Your task to perform on an android device: Go to Wikipedia Image 0: 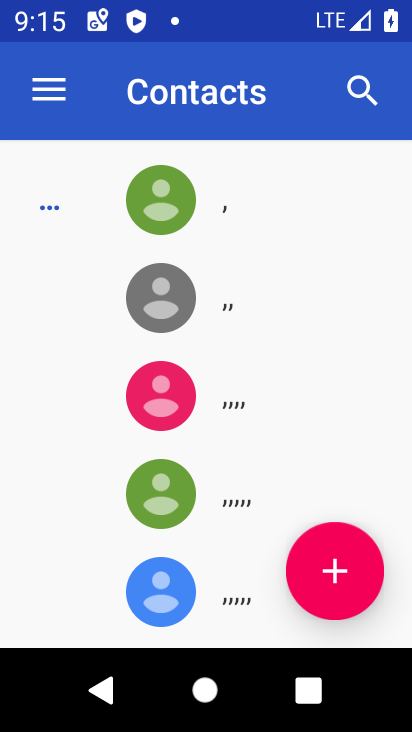
Step 0: press home button
Your task to perform on an android device: Go to Wikipedia Image 1: 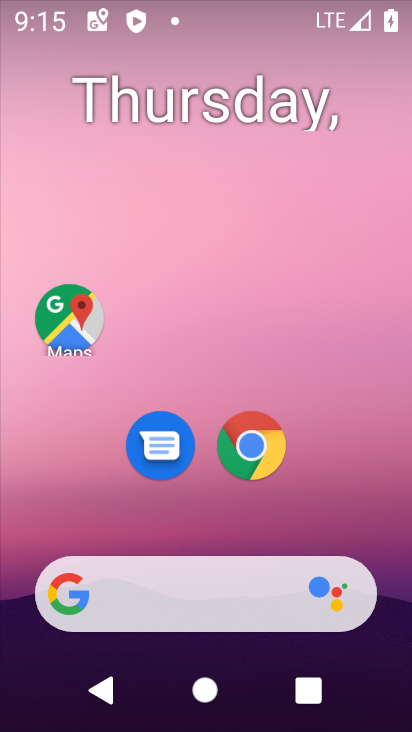
Step 1: click (258, 437)
Your task to perform on an android device: Go to Wikipedia Image 2: 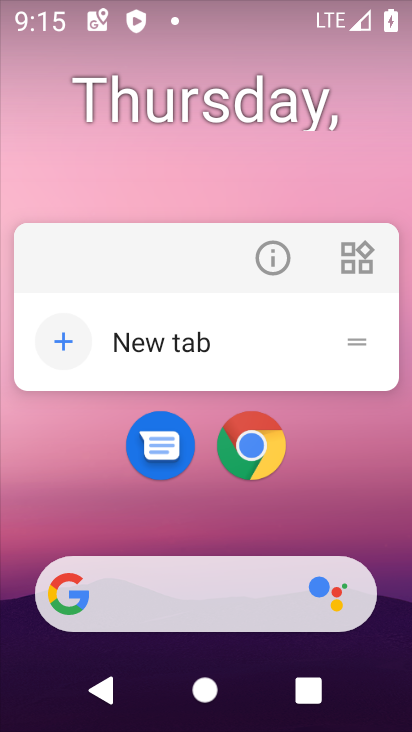
Step 2: click (278, 261)
Your task to perform on an android device: Go to Wikipedia Image 3: 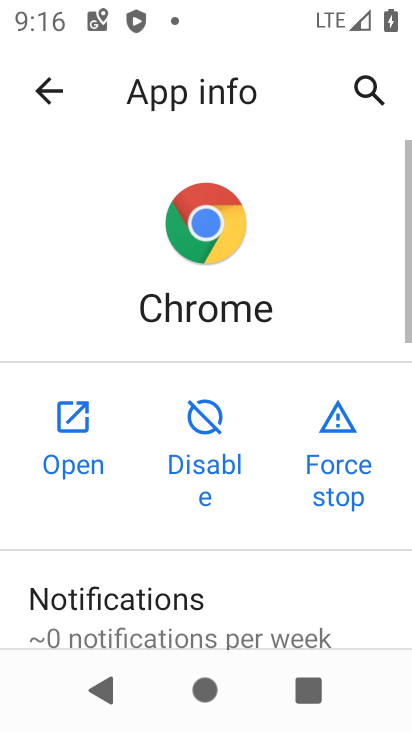
Step 3: click (55, 415)
Your task to perform on an android device: Go to Wikipedia Image 4: 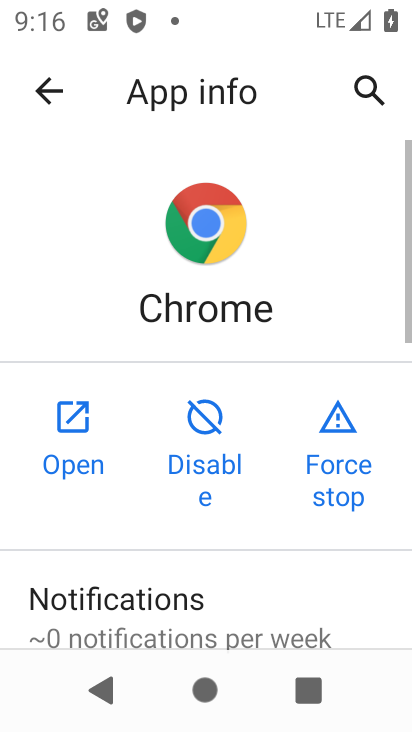
Step 4: click (55, 415)
Your task to perform on an android device: Go to Wikipedia Image 5: 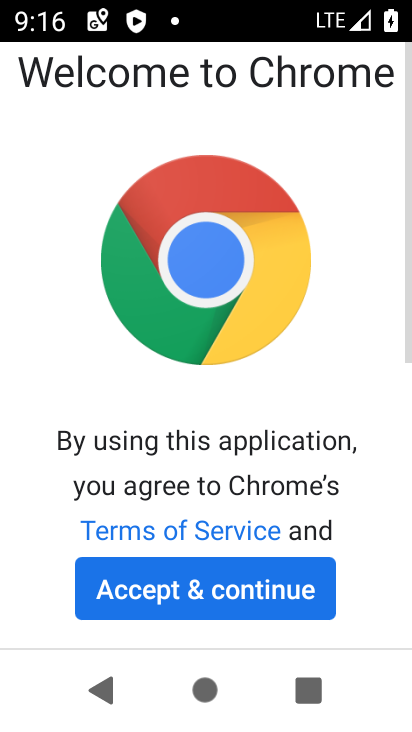
Step 5: click (175, 576)
Your task to perform on an android device: Go to Wikipedia Image 6: 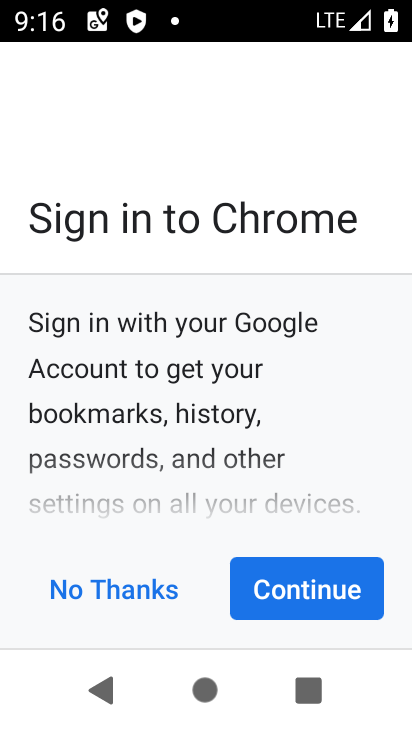
Step 6: click (282, 590)
Your task to perform on an android device: Go to Wikipedia Image 7: 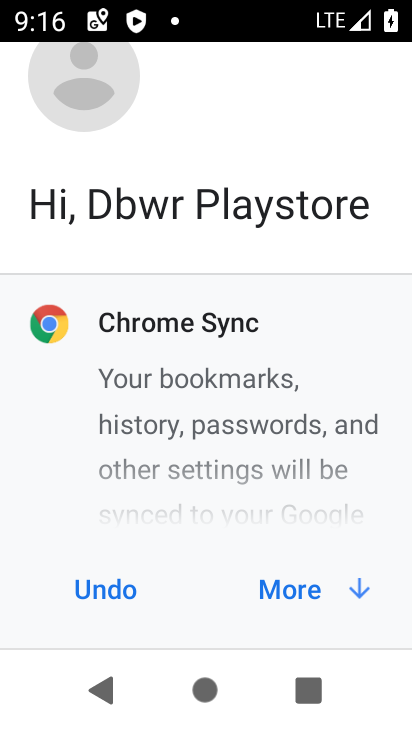
Step 7: click (273, 600)
Your task to perform on an android device: Go to Wikipedia Image 8: 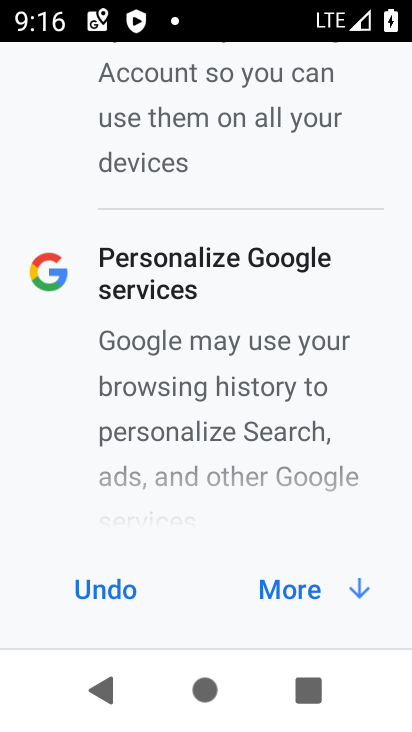
Step 8: click (284, 596)
Your task to perform on an android device: Go to Wikipedia Image 9: 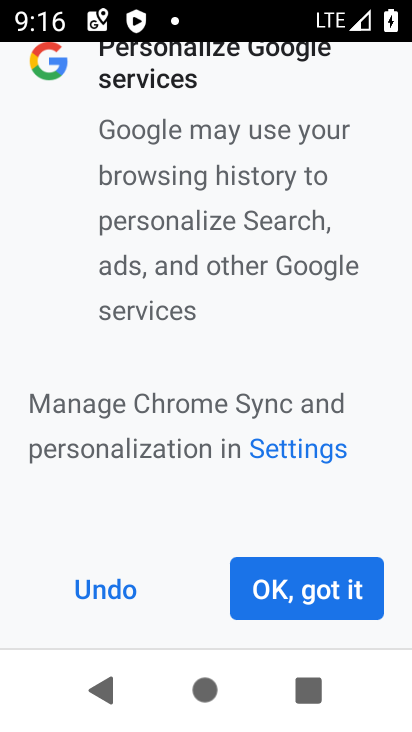
Step 9: click (285, 591)
Your task to perform on an android device: Go to Wikipedia Image 10: 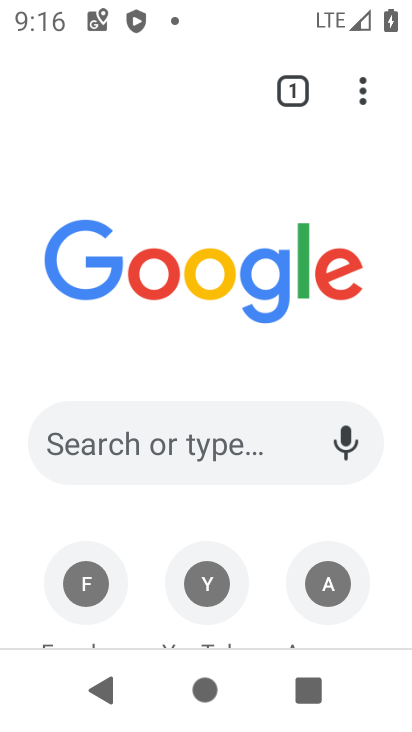
Step 10: drag from (182, 526) to (167, 347)
Your task to perform on an android device: Go to Wikipedia Image 11: 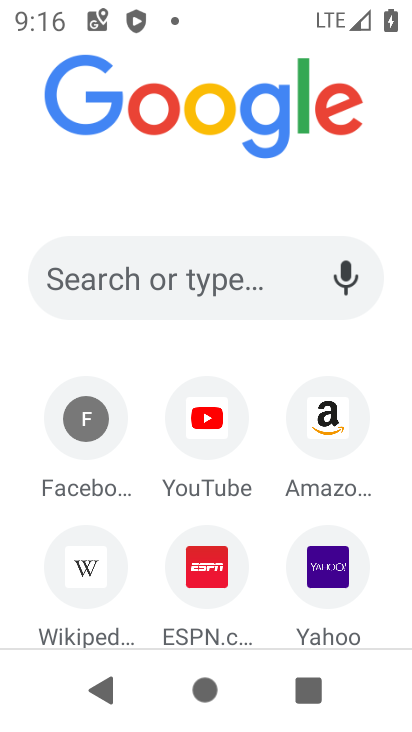
Step 11: drag from (269, 209) to (243, 587)
Your task to perform on an android device: Go to Wikipedia Image 12: 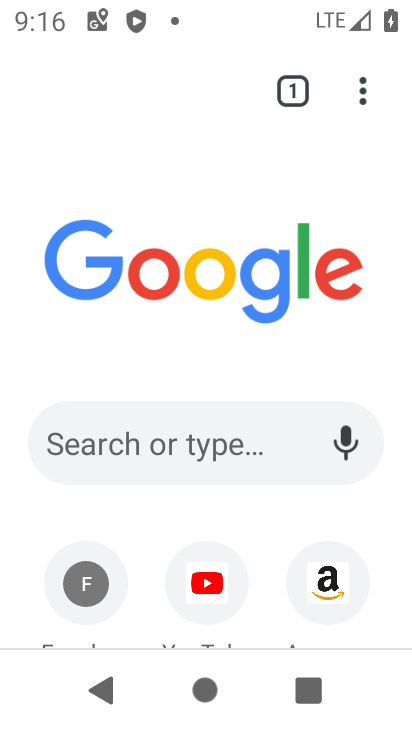
Step 12: click (364, 96)
Your task to perform on an android device: Go to Wikipedia Image 13: 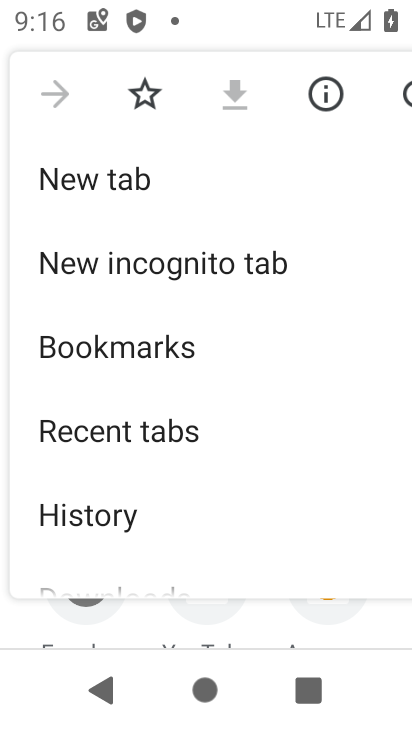
Step 13: press back button
Your task to perform on an android device: Go to Wikipedia Image 14: 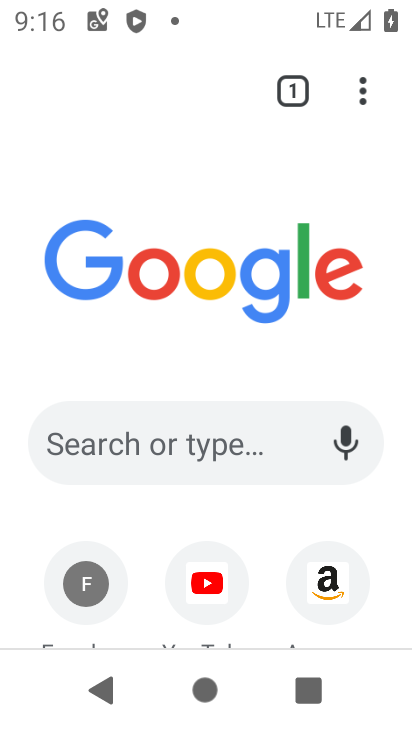
Step 14: drag from (190, 537) to (308, 98)
Your task to perform on an android device: Go to Wikipedia Image 15: 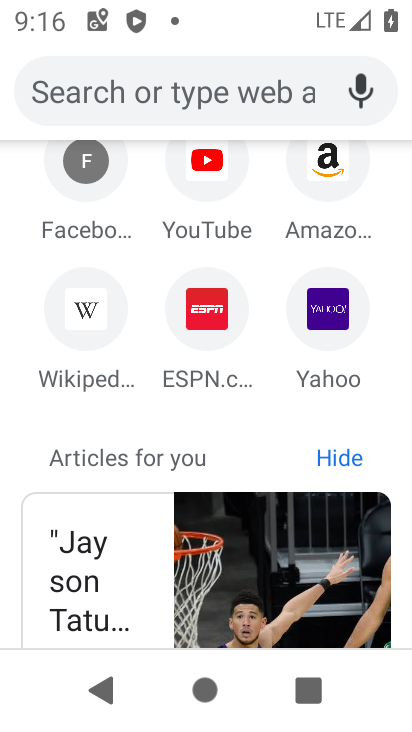
Step 15: click (63, 314)
Your task to perform on an android device: Go to Wikipedia Image 16: 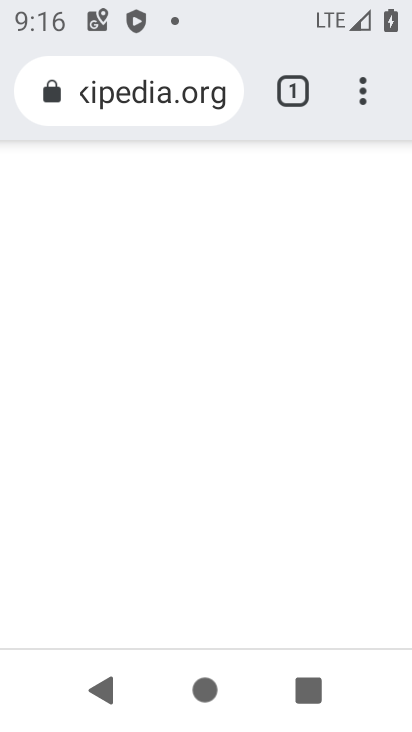
Step 16: task complete